Your task to perform on an android device: snooze an email in the gmail app Image 0: 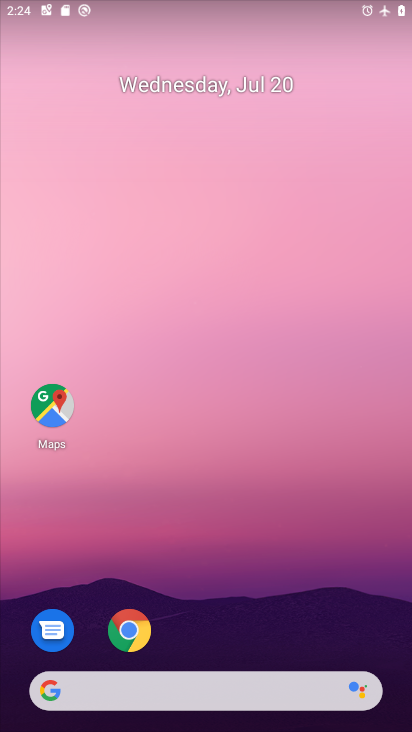
Step 0: drag from (229, 631) to (255, 139)
Your task to perform on an android device: snooze an email in the gmail app Image 1: 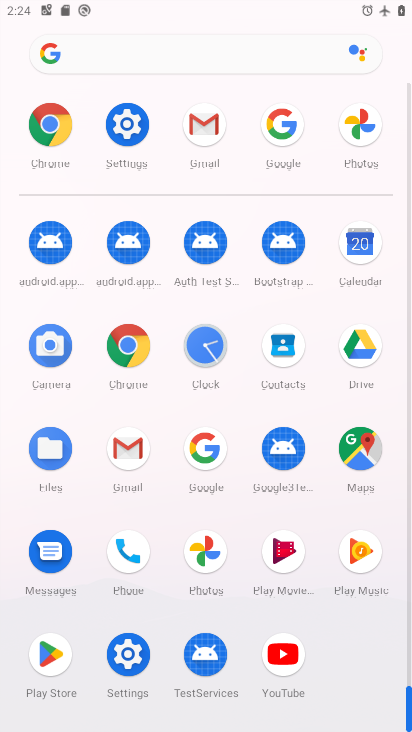
Step 1: click (120, 461)
Your task to perform on an android device: snooze an email in the gmail app Image 2: 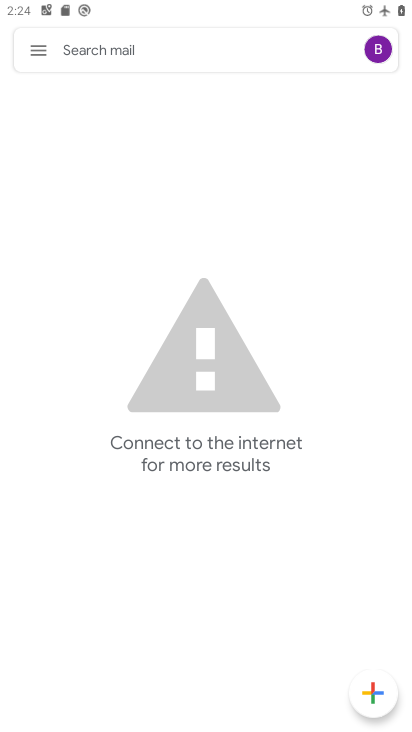
Step 2: click (39, 51)
Your task to perform on an android device: snooze an email in the gmail app Image 3: 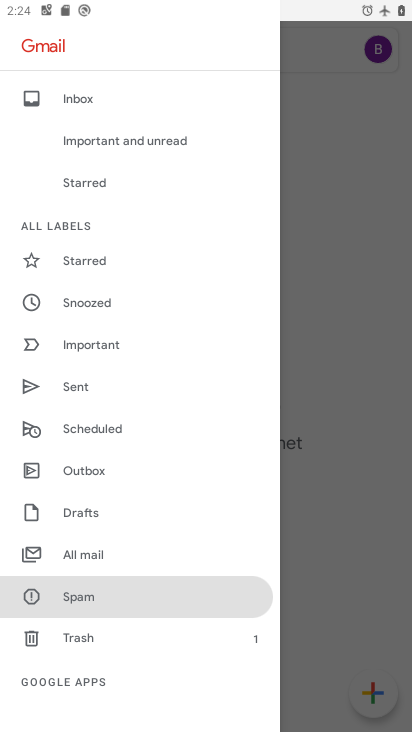
Step 3: click (94, 553)
Your task to perform on an android device: snooze an email in the gmail app Image 4: 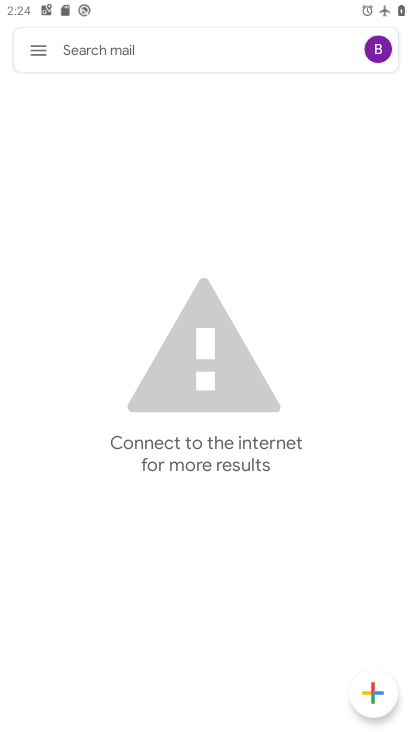
Step 4: task complete